Your task to perform on an android device: see creations saved in the google photos Image 0: 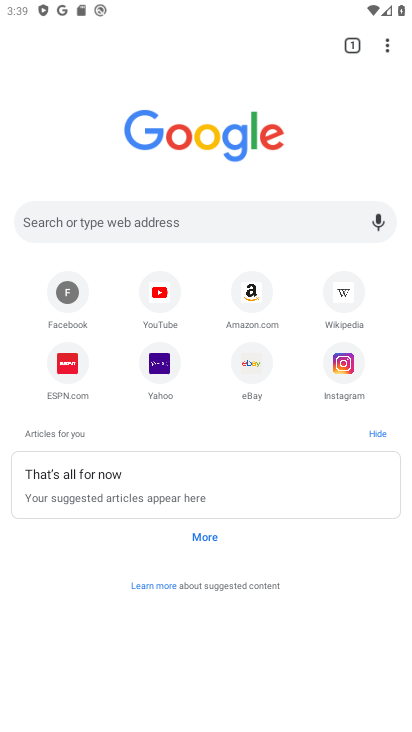
Step 0: press home button
Your task to perform on an android device: see creations saved in the google photos Image 1: 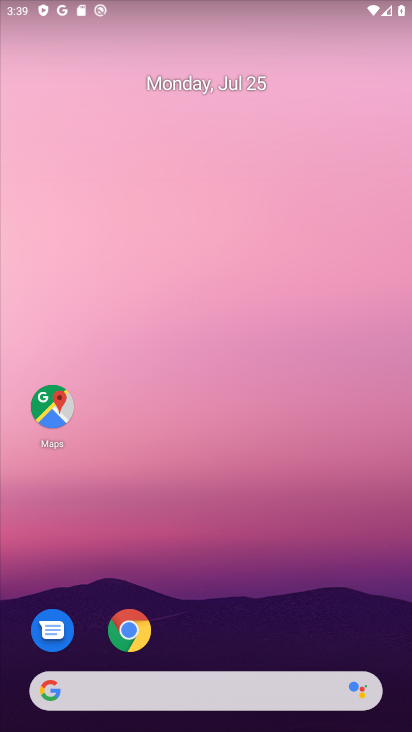
Step 1: drag from (168, 687) to (215, 114)
Your task to perform on an android device: see creations saved in the google photos Image 2: 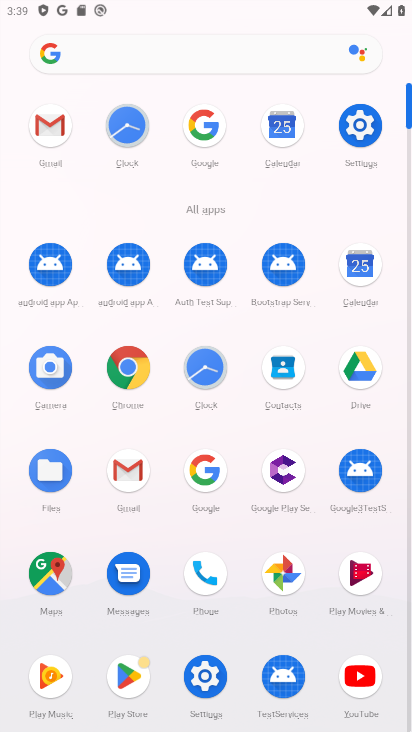
Step 2: click (284, 574)
Your task to perform on an android device: see creations saved in the google photos Image 3: 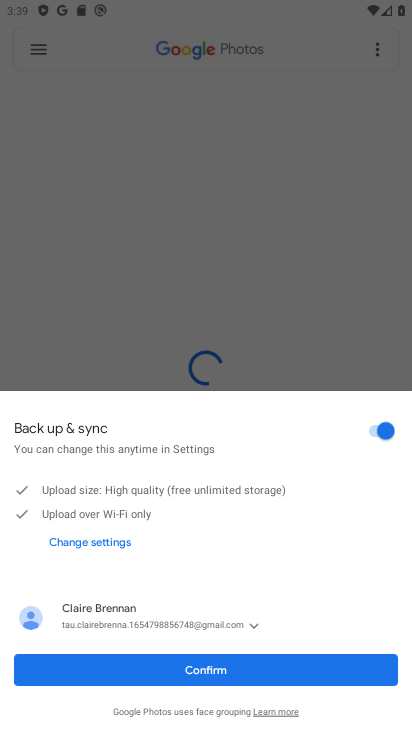
Step 3: click (207, 670)
Your task to perform on an android device: see creations saved in the google photos Image 4: 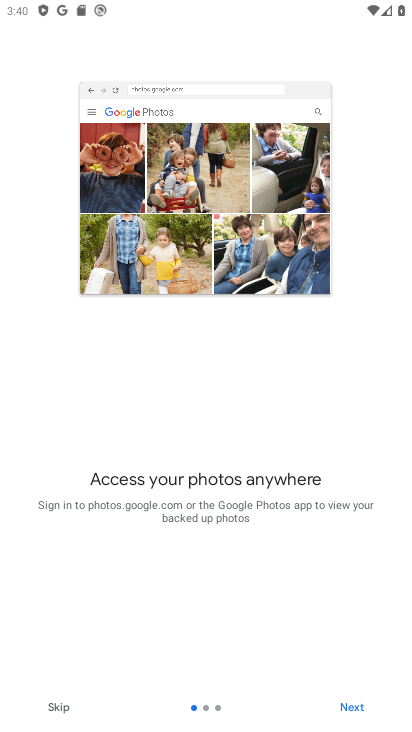
Step 4: click (349, 709)
Your task to perform on an android device: see creations saved in the google photos Image 5: 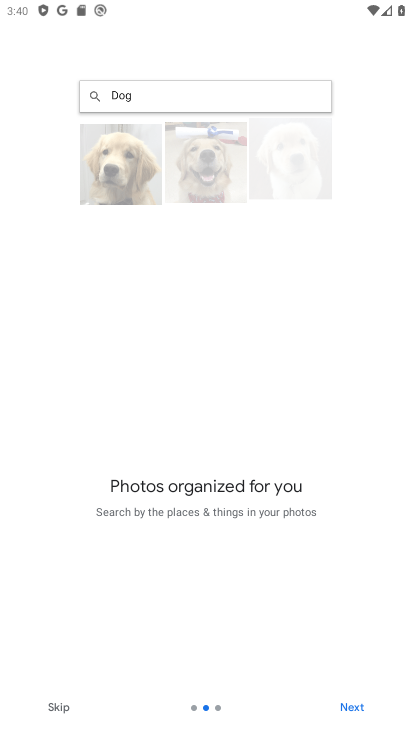
Step 5: click (349, 709)
Your task to perform on an android device: see creations saved in the google photos Image 6: 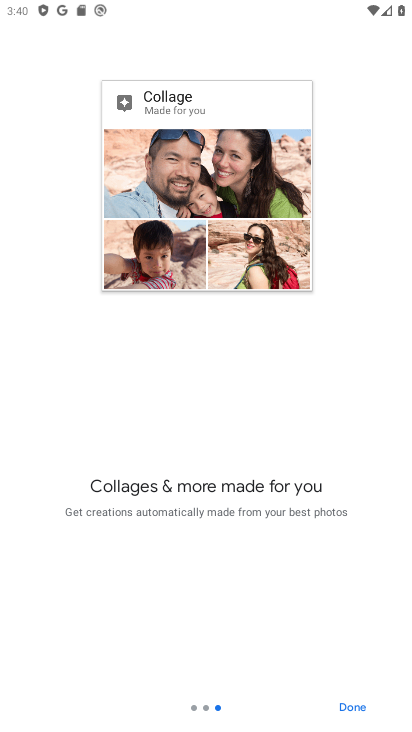
Step 6: click (349, 709)
Your task to perform on an android device: see creations saved in the google photos Image 7: 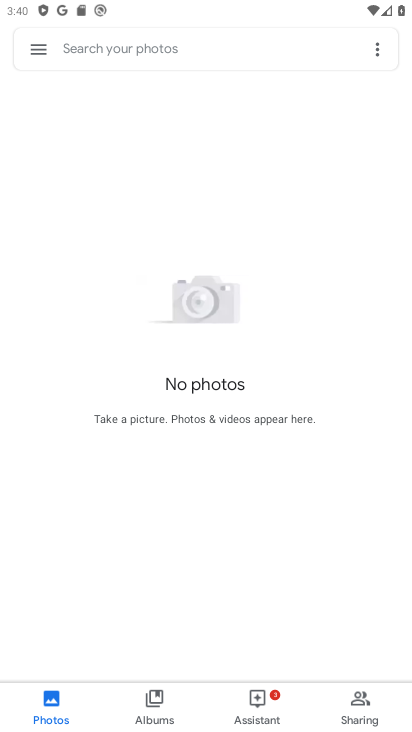
Step 7: click (29, 60)
Your task to perform on an android device: see creations saved in the google photos Image 8: 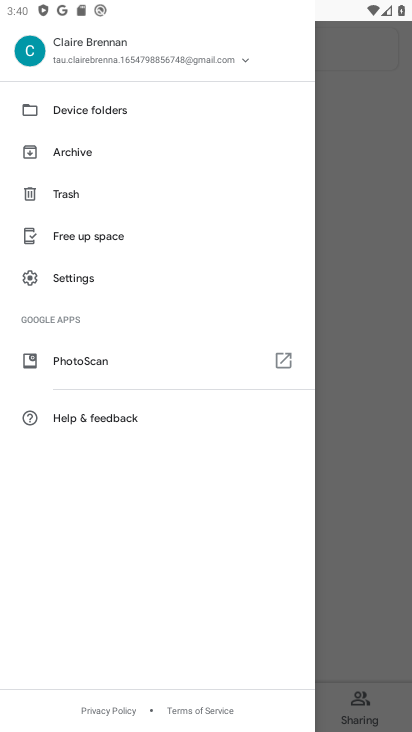
Step 8: click (80, 285)
Your task to perform on an android device: see creations saved in the google photos Image 9: 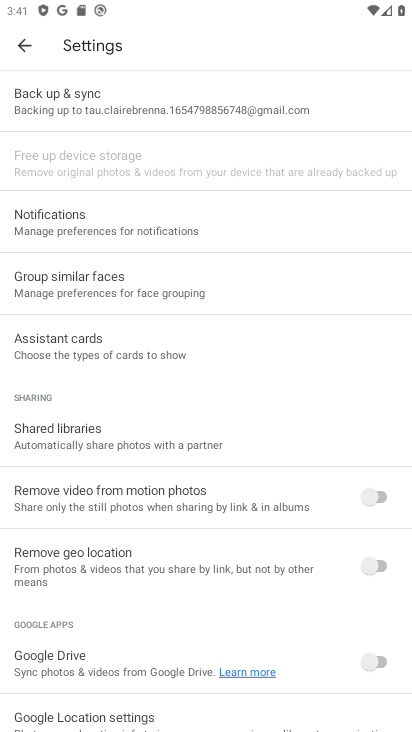
Step 9: drag from (104, 542) to (190, 400)
Your task to perform on an android device: see creations saved in the google photos Image 10: 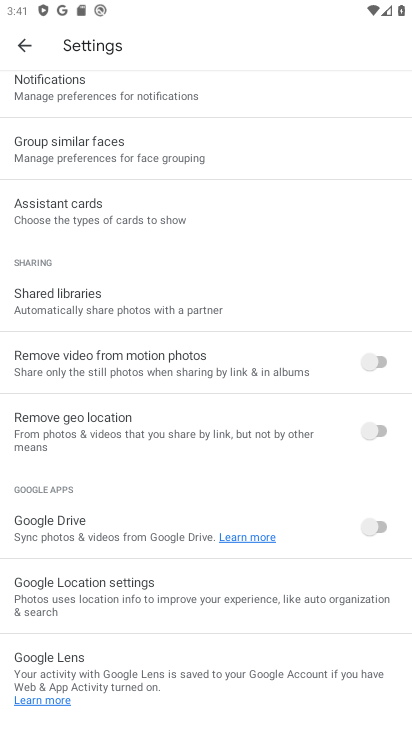
Step 10: drag from (136, 640) to (214, 434)
Your task to perform on an android device: see creations saved in the google photos Image 11: 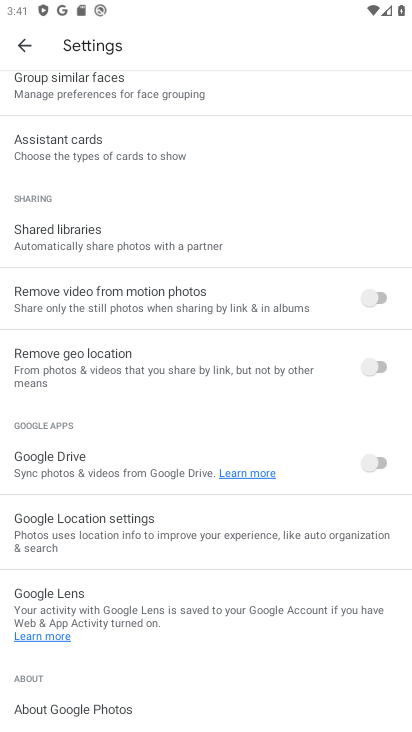
Step 11: drag from (105, 205) to (134, 501)
Your task to perform on an android device: see creations saved in the google photos Image 12: 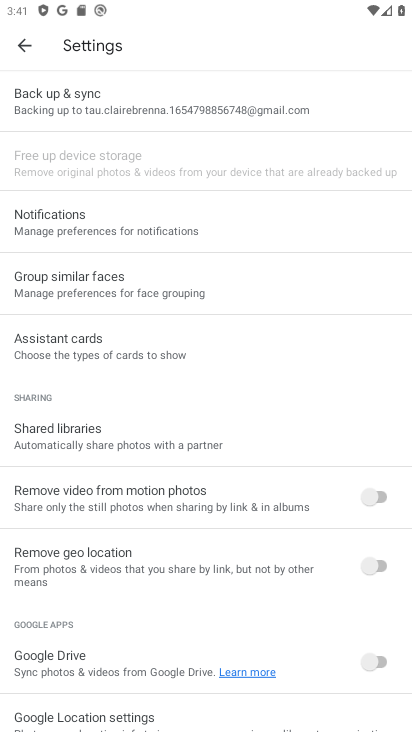
Step 12: drag from (147, 184) to (198, 395)
Your task to perform on an android device: see creations saved in the google photos Image 13: 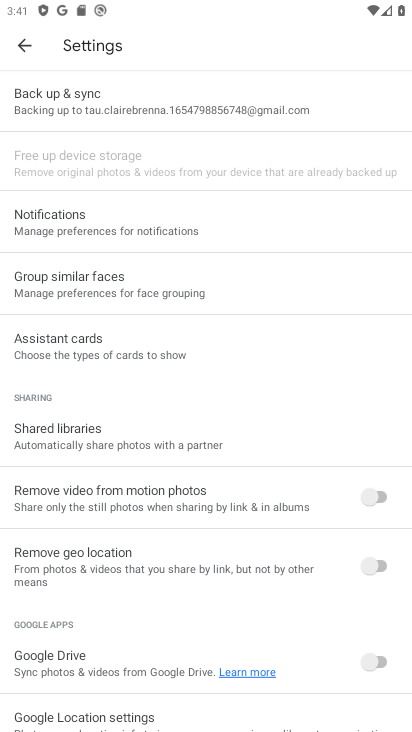
Step 13: press back button
Your task to perform on an android device: see creations saved in the google photos Image 14: 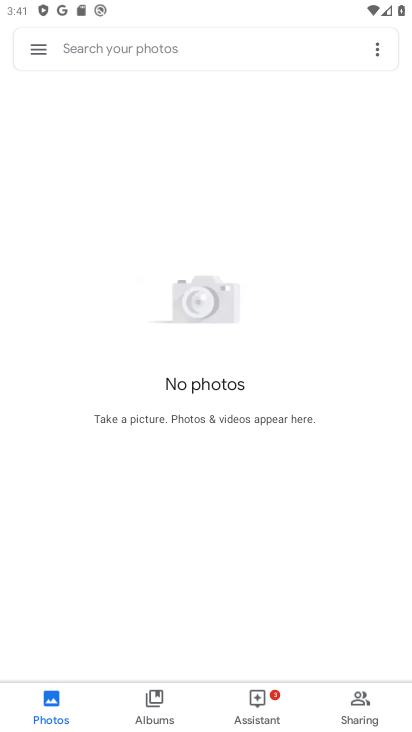
Step 14: click (159, 694)
Your task to perform on an android device: see creations saved in the google photos Image 15: 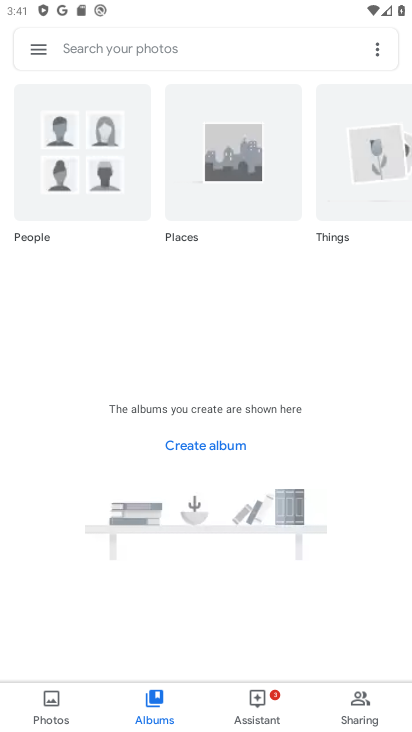
Step 15: click (379, 49)
Your task to perform on an android device: see creations saved in the google photos Image 16: 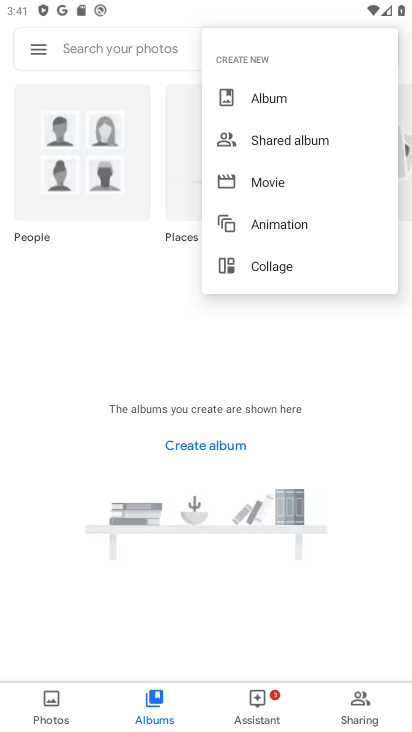
Step 16: click (127, 39)
Your task to perform on an android device: see creations saved in the google photos Image 17: 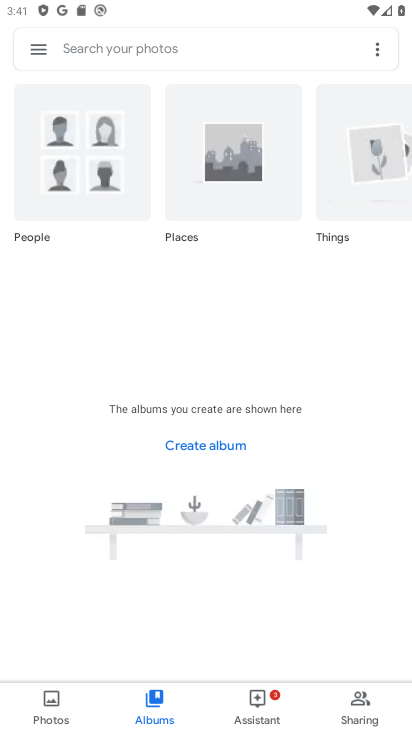
Step 17: click (127, 39)
Your task to perform on an android device: see creations saved in the google photos Image 18: 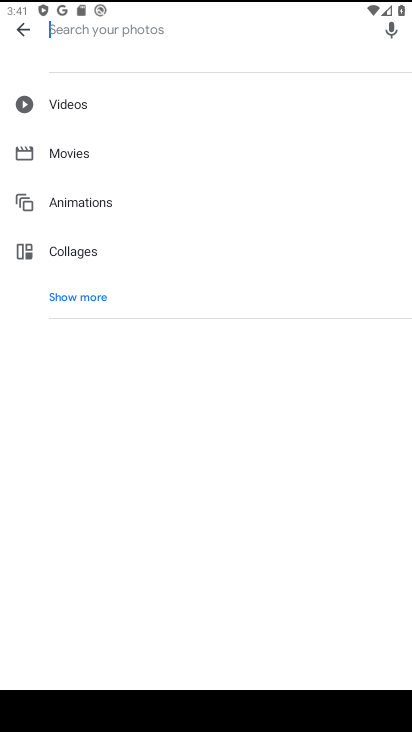
Step 18: click (75, 293)
Your task to perform on an android device: see creations saved in the google photos Image 19: 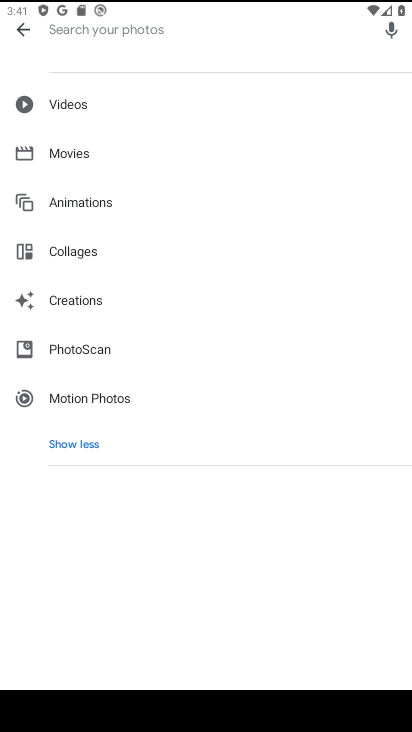
Step 19: click (75, 293)
Your task to perform on an android device: see creations saved in the google photos Image 20: 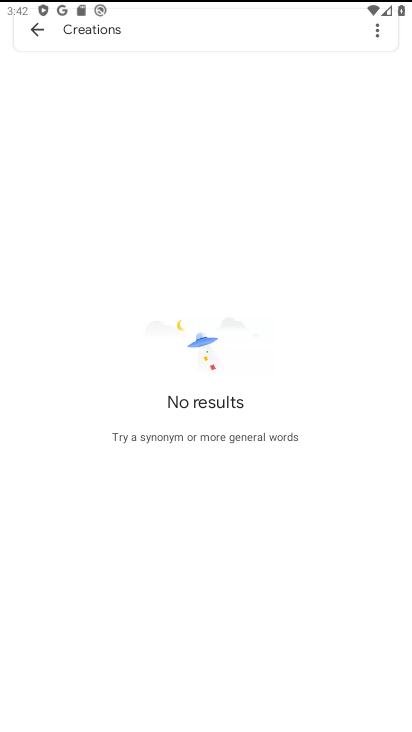
Step 20: task complete